Your task to perform on an android device: Open location settings Image 0: 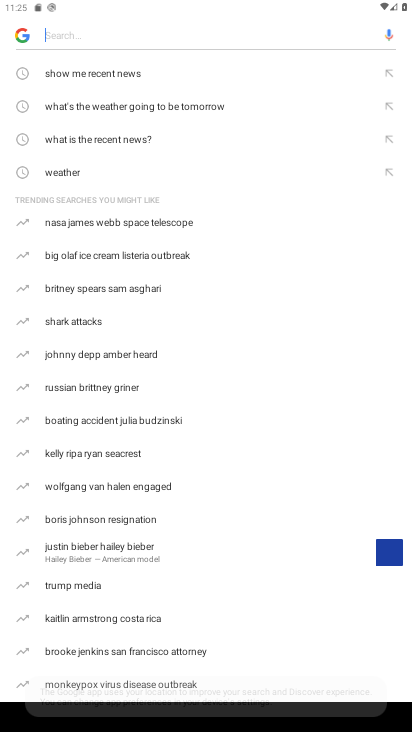
Step 0: press home button
Your task to perform on an android device: Open location settings Image 1: 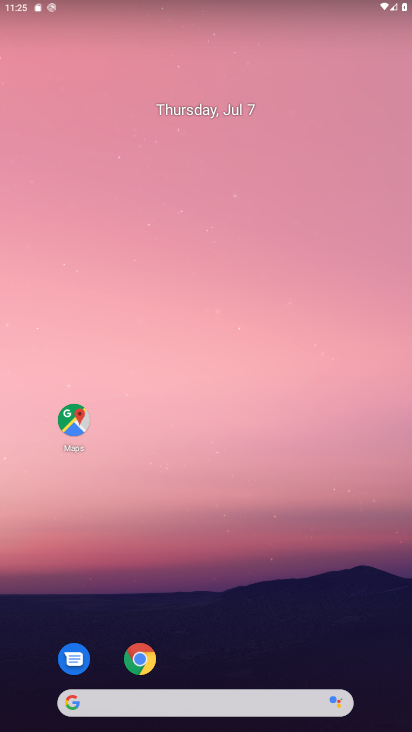
Step 1: drag from (231, 649) to (242, 16)
Your task to perform on an android device: Open location settings Image 2: 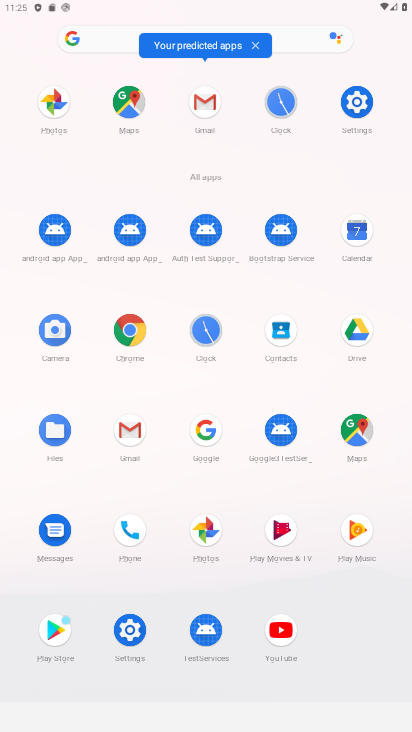
Step 2: click (129, 644)
Your task to perform on an android device: Open location settings Image 3: 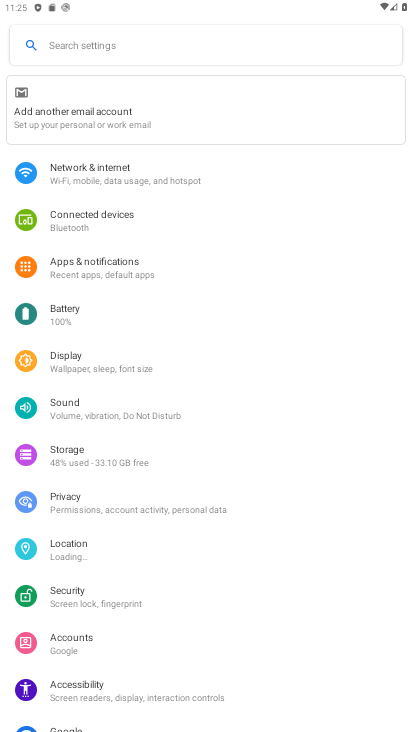
Step 3: click (79, 553)
Your task to perform on an android device: Open location settings Image 4: 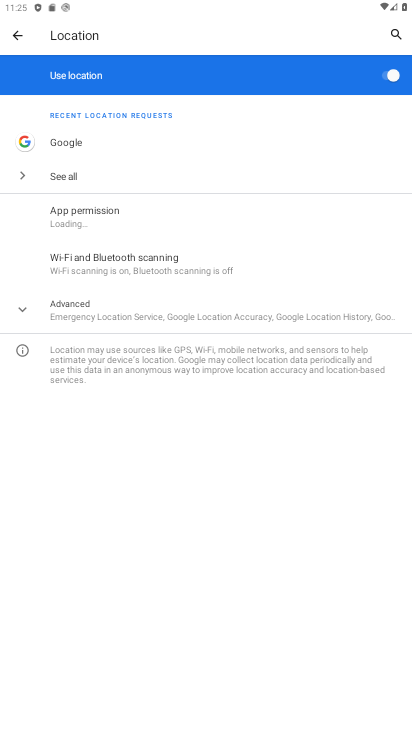
Step 4: task complete